Your task to perform on an android device: turn off sleep mode Image 0: 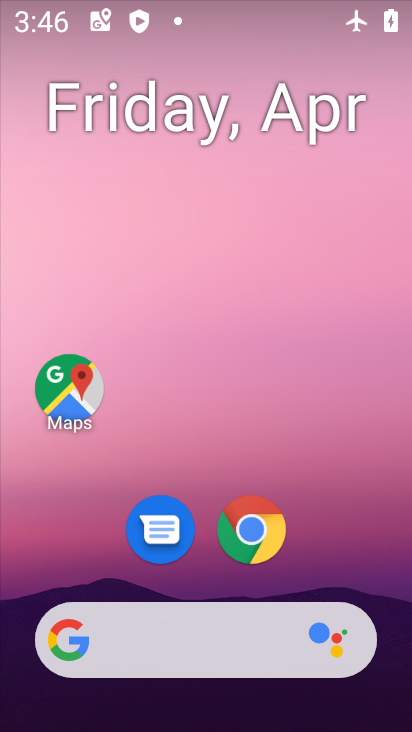
Step 0: drag from (365, 557) to (319, 80)
Your task to perform on an android device: turn off sleep mode Image 1: 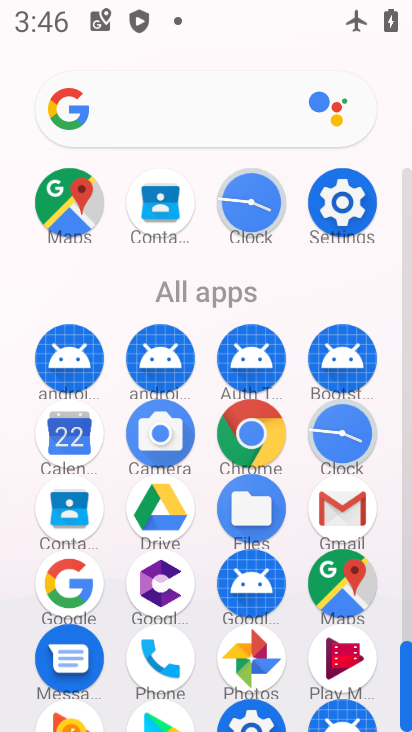
Step 1: click (334, 199)
Your task to perform on an android device: turn off sleep mode Image 2: 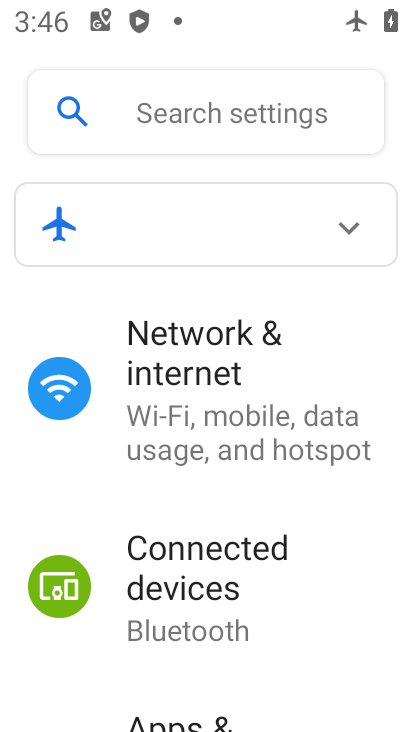
Step 2: drag from (209, 656) to (241, 328)
Your task to perform on an android device: turn off sleep mode Image 3: 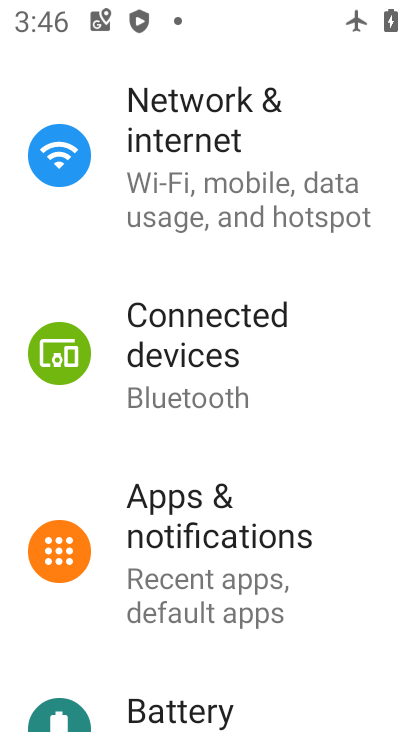
Step 3: drag from (261, 628) to (305, 309)
Your task to perform on an android device: turn off sleep mode Image 4: 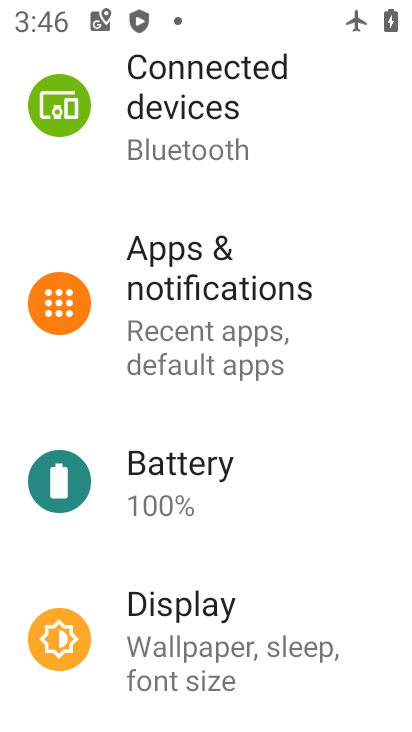
Step 4: click (235, 655)
Your task to perform on an android device: turn off sleep mode Image 5: 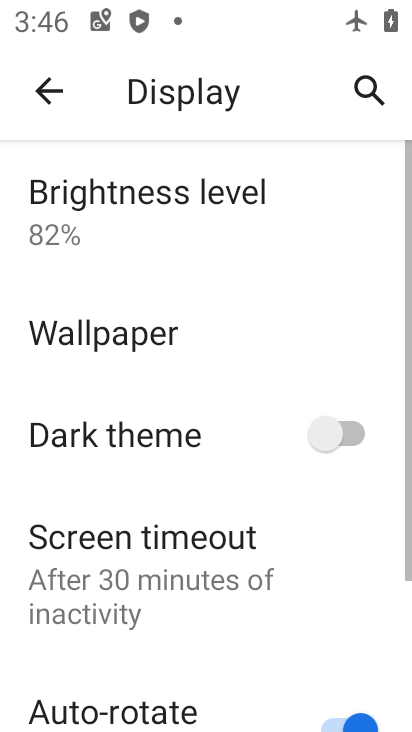
Step 5: drag from (240, 611) to (266, 261)
Your task to perform on an android device: turn off sleep mode Image 6: 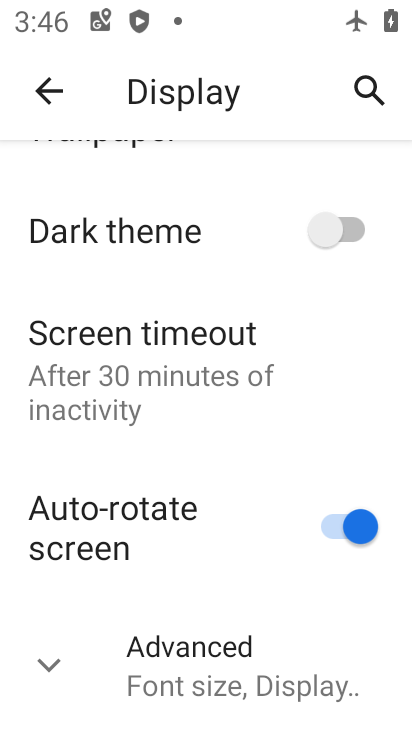
Step 6: drag from (240, 581) to (256, 316)
Your task to perform on an android device: turn off sleep mode Image 7: 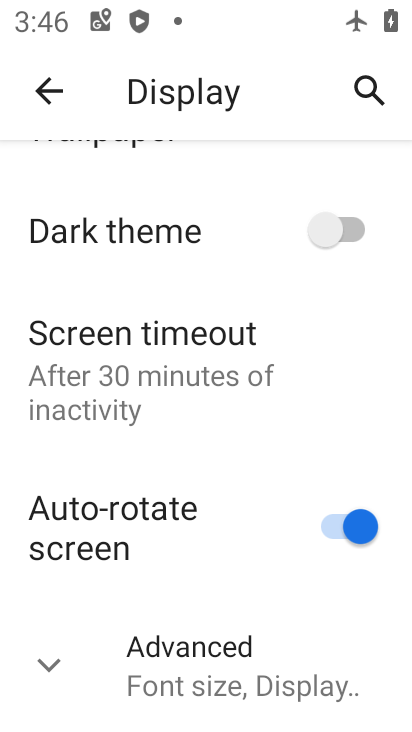
Step 7: click (191, 651)
Your task to perform on an android device: turn off sleep mode Image 8: 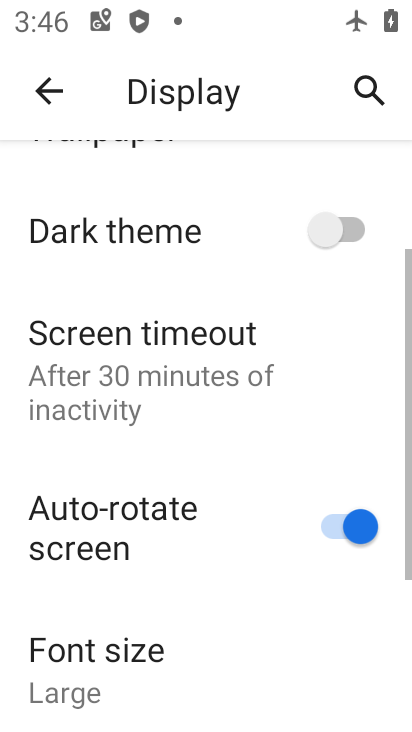
Step 8: task complete